Your task to perform on an android device: set an alarm Image 0: 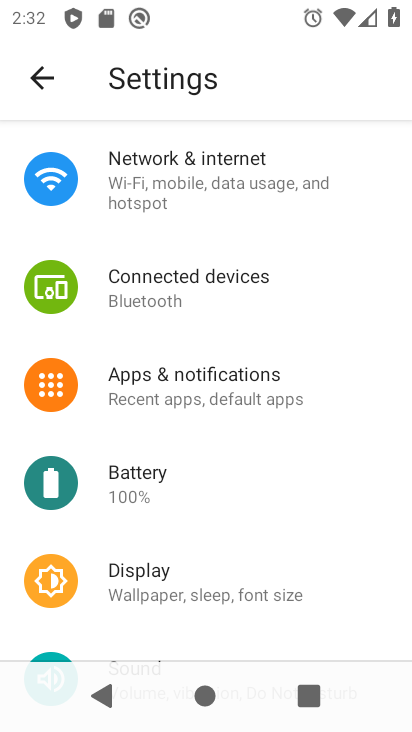
Step 0: press home button
Your task to perform on an android device: set an alarm Image 1: 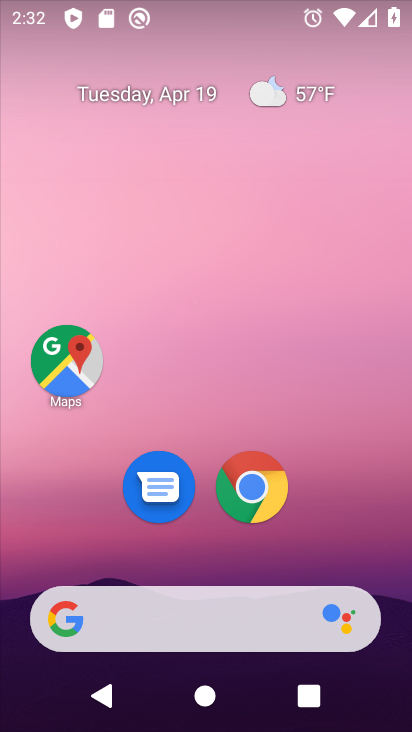
Step 1: drag from (387, 523) to (411, 107)
Your task to perform on an android device: set an alarm Image 2: 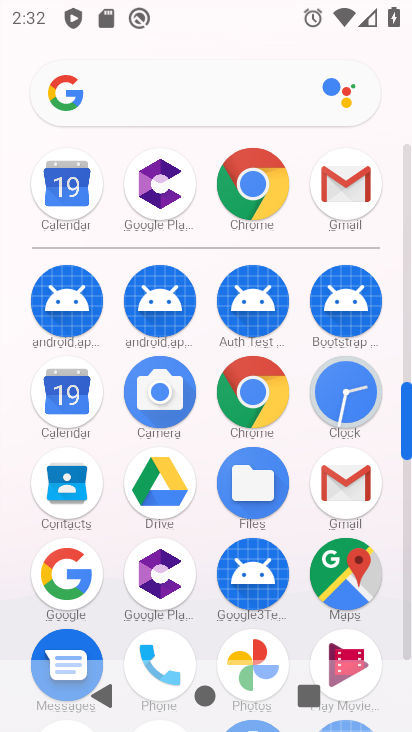
Step 2: click (324, 385)
Your task to perform on an android device: set an alarm Image 3: 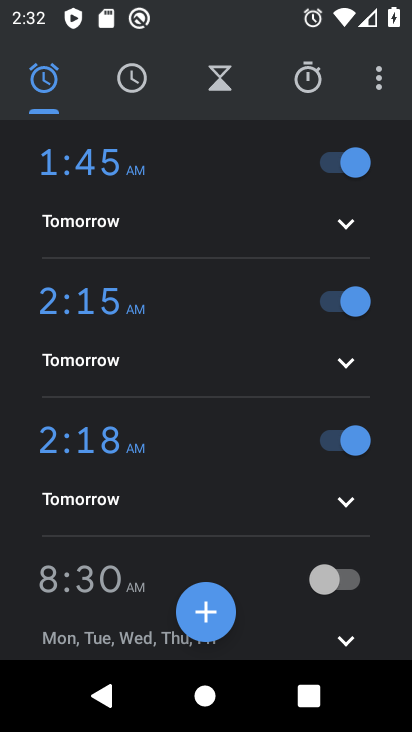
Step 3: click (217, 608)
Your task to perform on an android device: set an alarm Image 4: 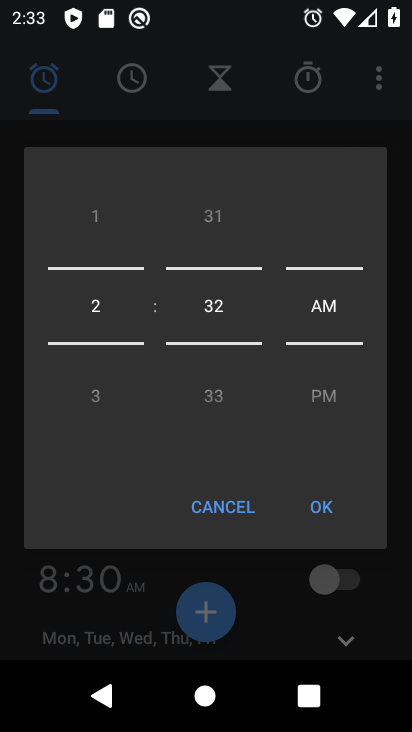
Step 4: click (309, 507)
Your task to perform on an android device: set an alarm Image 5: 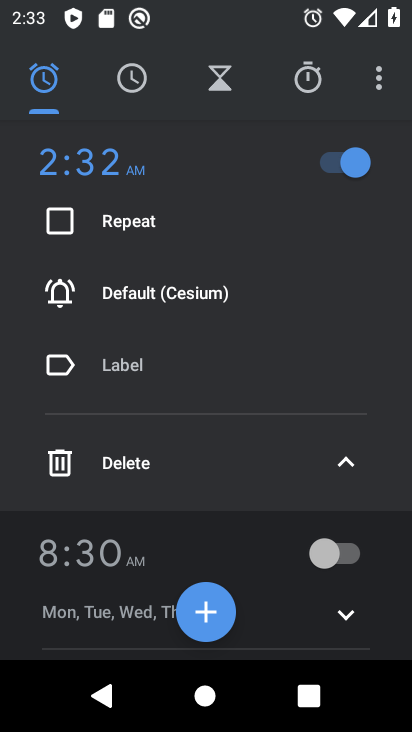
Step 5: task complete